Your task to perform on an android device: turn on javascript in the chrome app Image 0: 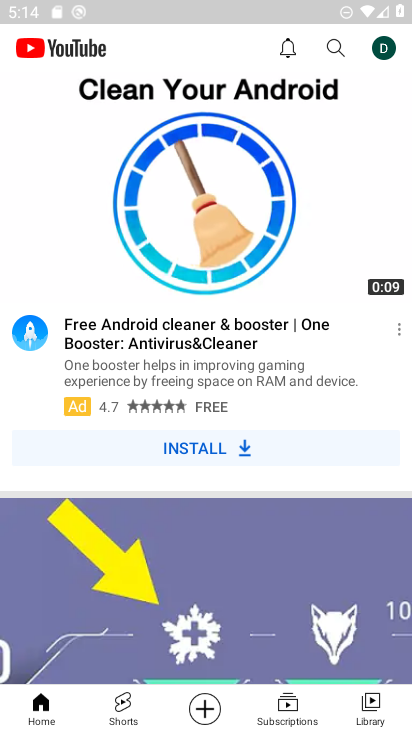
Step 0: press home button
Your task to perform on an android device: turn on javascript in the chrome app Image 1: 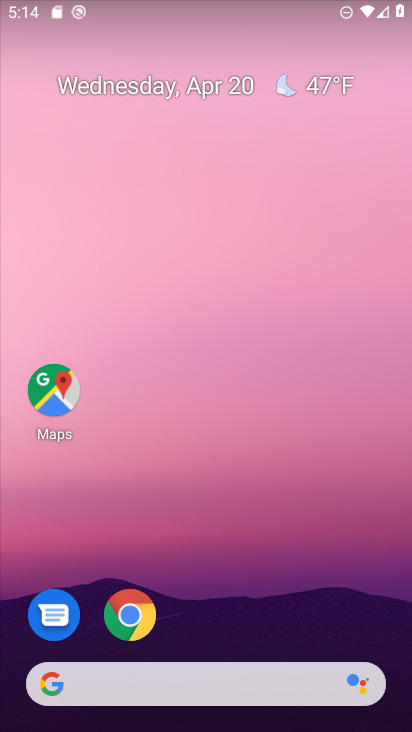
Step 1: click (130, 608)
Your task to perform on an android device: turn on javascript in the chrome app Image 2: 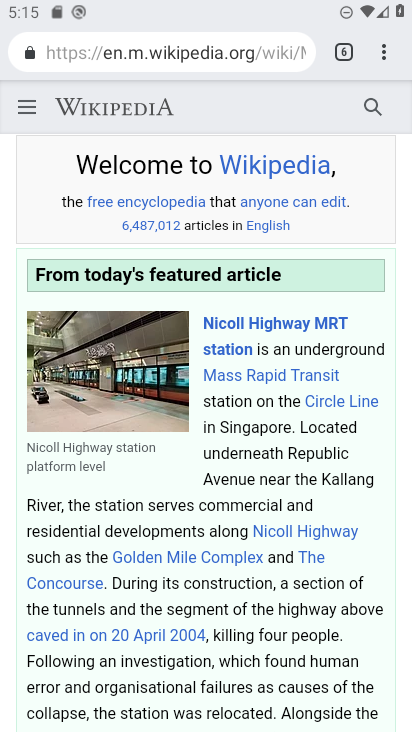
Step 2: click (386, 52)
Your task to perform on an android device: turn on javascript in the chrome app Image 3: 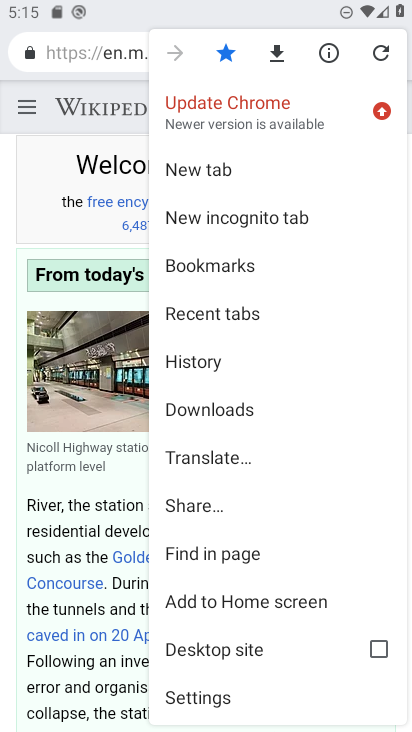
Step 3: click (228, 694)
Your task to perform on an android device: turn on javascript in the chrome app Image 4: 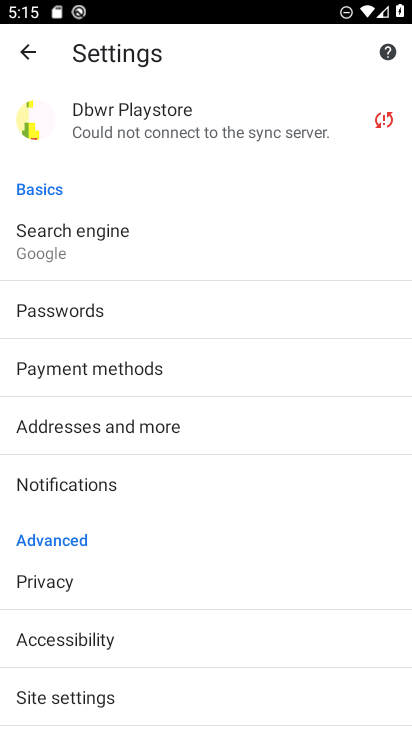
Step 4: click (178, 694)
Your task to perform on an android device: turn on javascript in the chrome app Image 5: 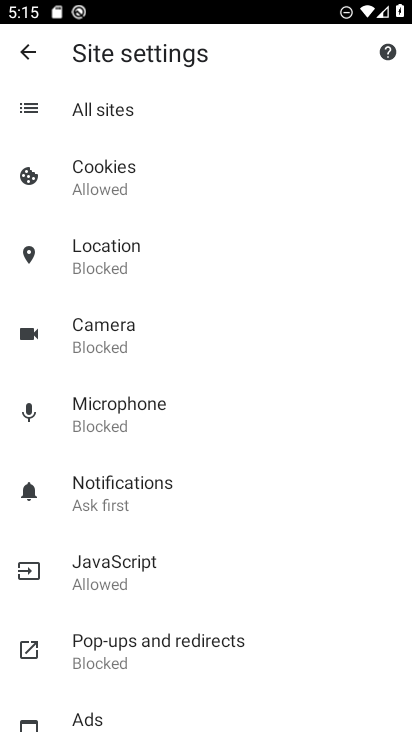
Step 5: click (142, 571)
Your task to perform on an android device: turn on javascript in the chrome app Image 6: 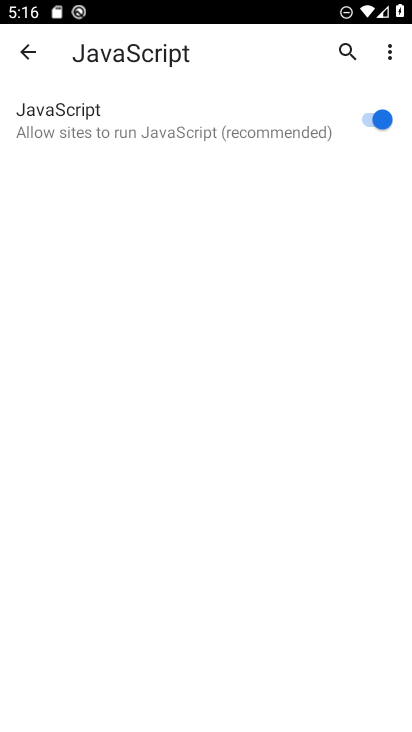
Step 6: task complete